Your task to perform on an android device: turn off data saver in the chrome app Image 0: 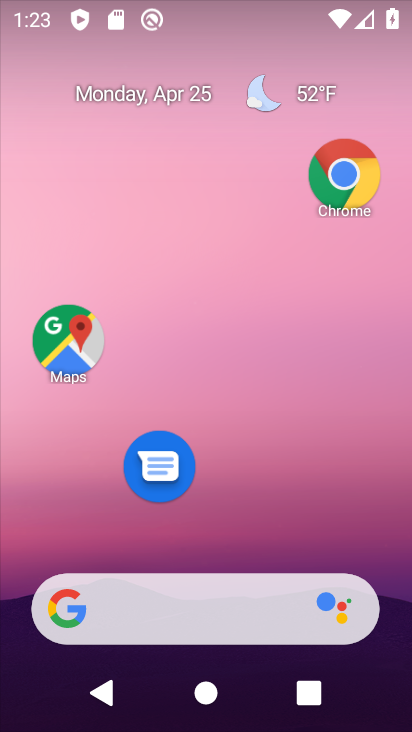
Step 0: click (346, 182)
Your task to perform on an android device: turn off data saver in the chrome app Image 1: 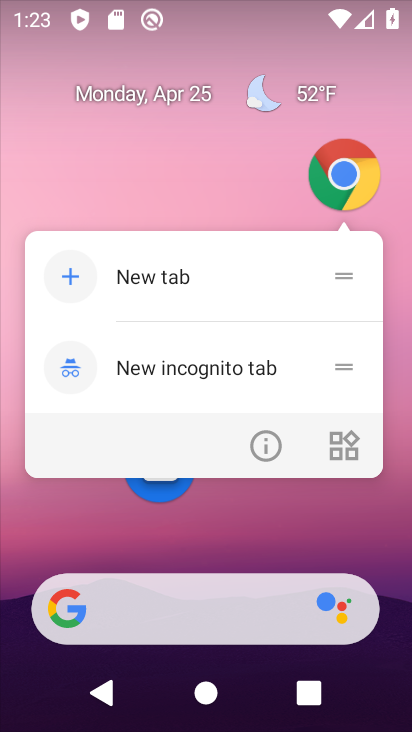
Step 1: click (330, 198)
Your task to perform on an android device: turn off data saver in the chrome app Image 2: 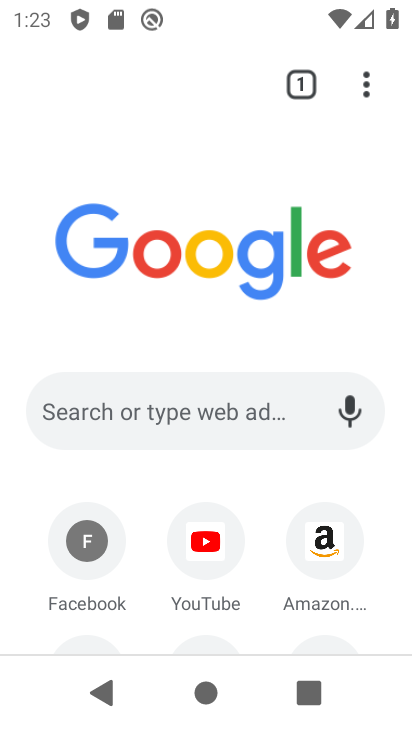
Step 2: click (370, 83)
Your task to perform on an android device: turn off data saver in the chrome app Image 3: 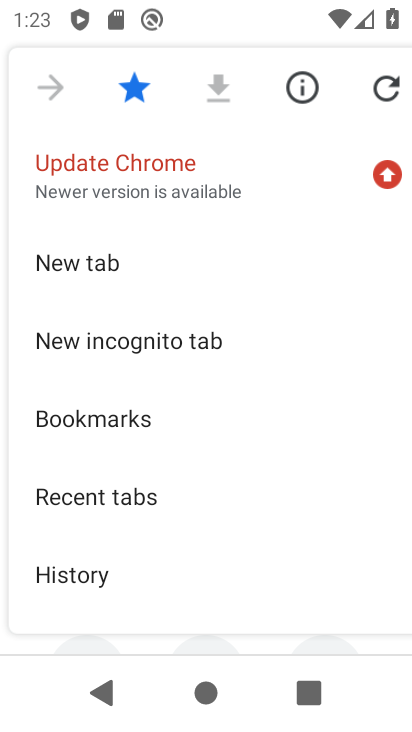
Step 3: drag from (253, 503) to (229, 220)
Your task to perform on an android device: turn off data saver in the chrome app Image 4: 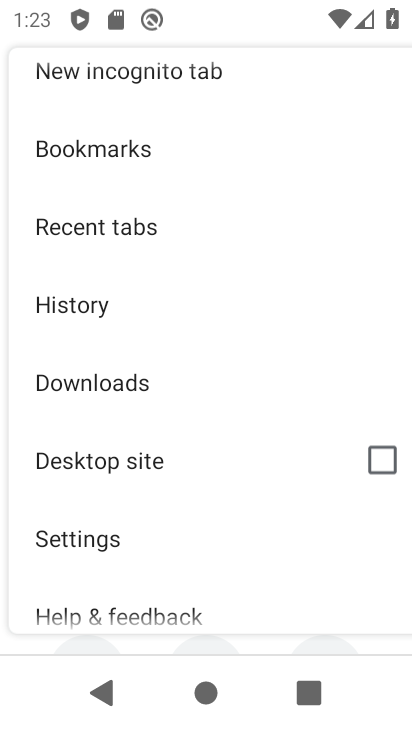
Step 4: click (152, 529)
Your task to perform on an android device: turn off data saver in the chrome app Image 5: 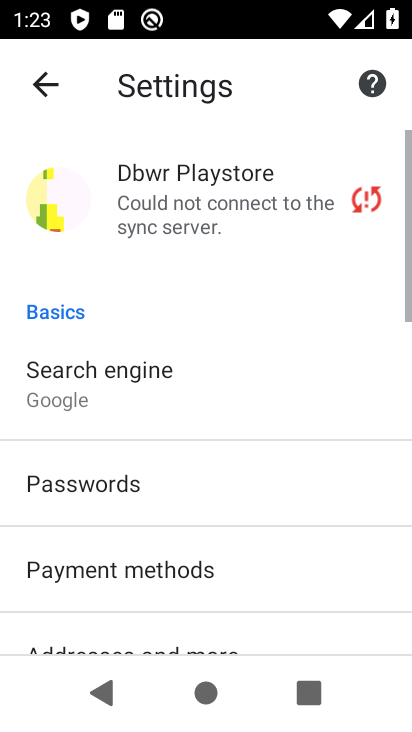
Step 5: drag from (127, 537) to (111, 280)
Your task to perform on an android device: turn off data saver in the chrome app Image 6: 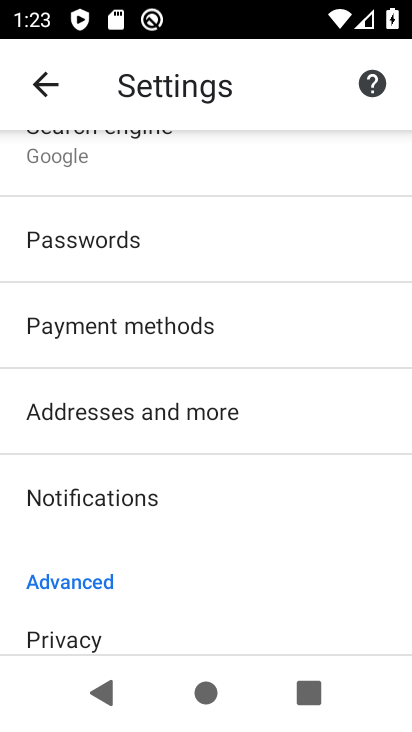
Step 6: drag from (161, 483) to (147, 374)
Your task to perform on an android device: turn off data saver in the chrome app Image 7: 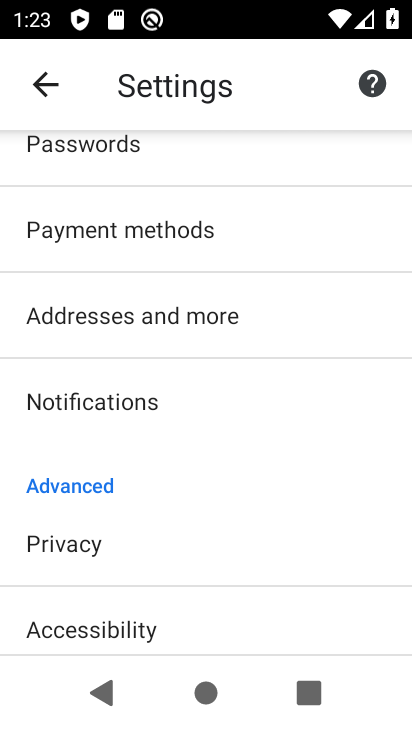
Step 7: drag from (125, 479) to (121, 414)
Your task to perform on an android device: turn off data saver in the chrome app Image 8: 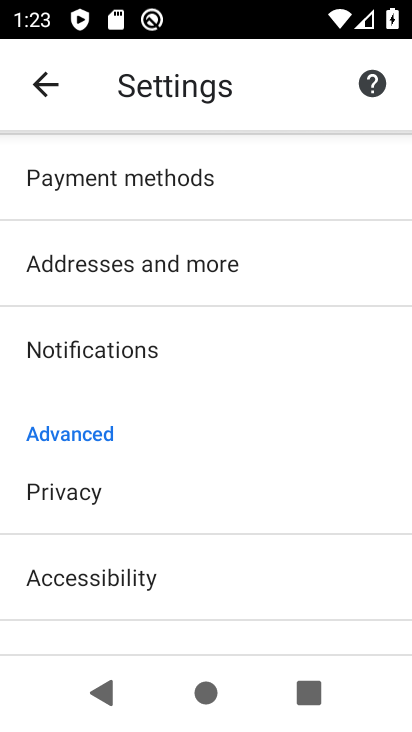
Step 8: drag from (102, 444) to (142, 291)
Your task to perform on an android device: turn off data saver in the chrome app Image 9: 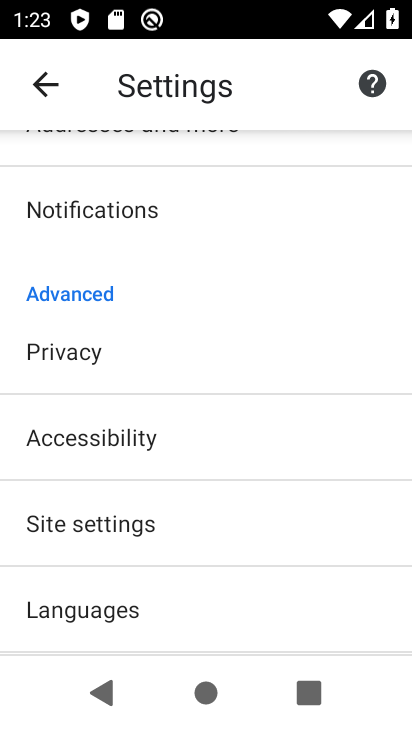
Step 9: drag from (186, 500) to (196, 342)
Your task to perform on an android device: turn off data saver in the chrome app Image 10: 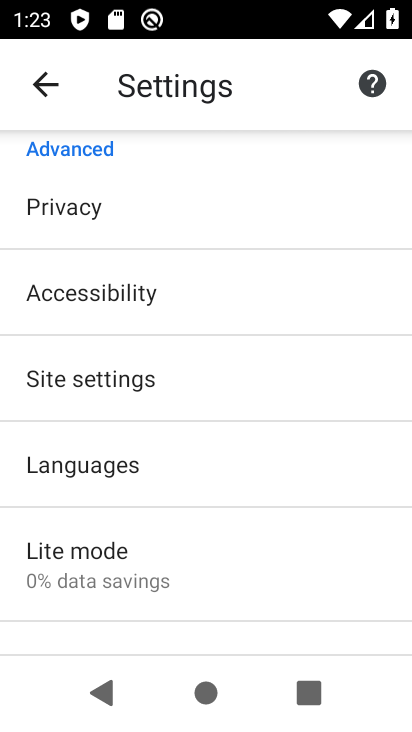
Step 10: click (177, 549)
Your task to perform on an android device: turn off data saver in the chrome app Image 11: 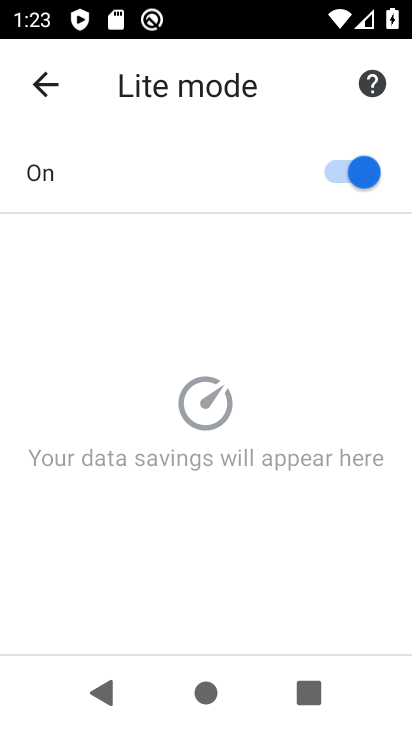
Step 11: click (323, 192)
Your task to perform on an android device: turn off data saver in the chrome app Image 12: 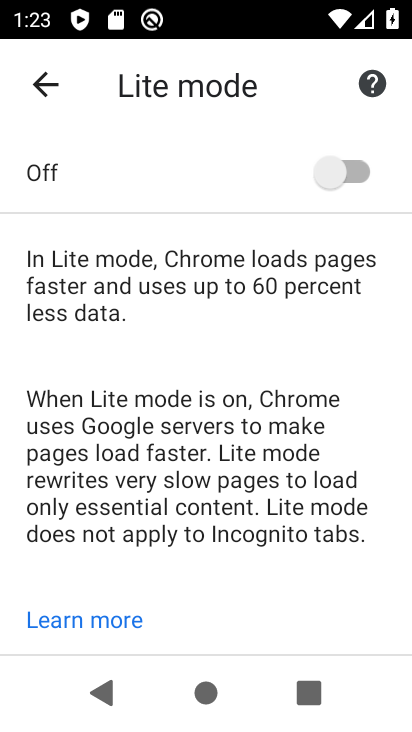
Step 12: task complete